Your task to perform on an android device: Go to internet settings Image 0: 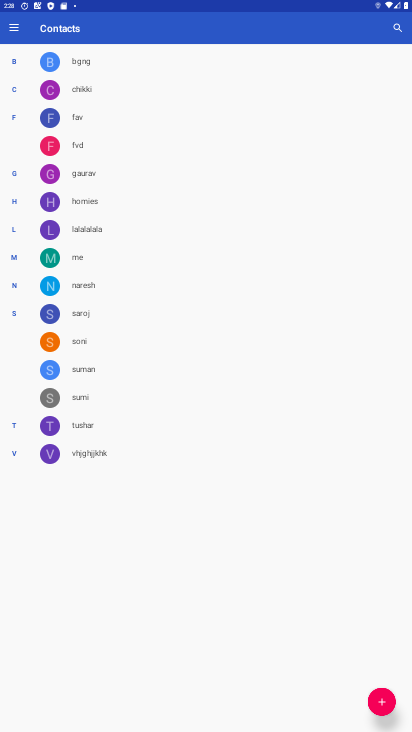
Step 0: press home button
Your task to perform on an android device: Go to internet settings Image 1: 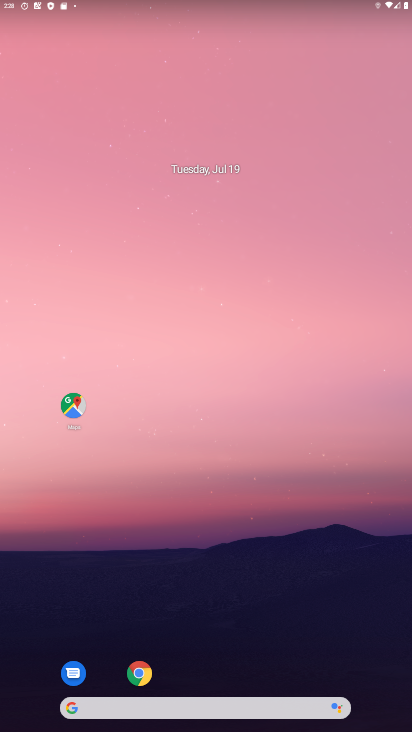
Step 1: drag from (228, 704) to (190, 7)
Your task to perform on an android device: Go to internet settings Image 2: 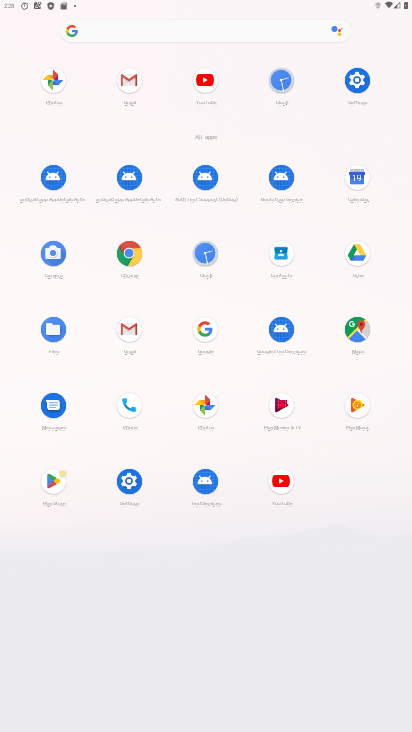
Step 2: click (133, 486)
Your task to perform on an android device: Go to internet settings Image 3: 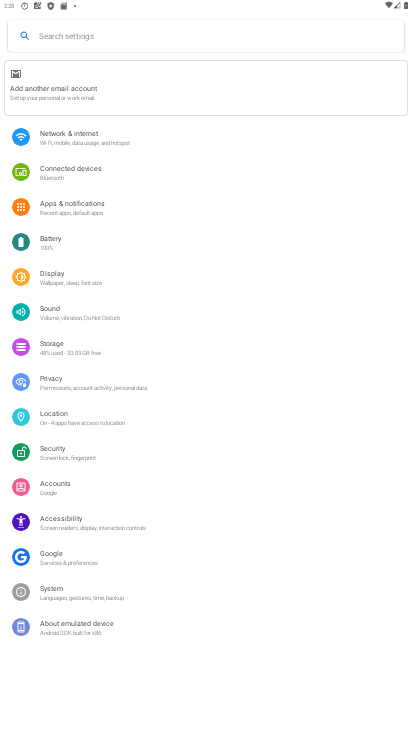
Step 3: click (96, 145)
Your task to perform on an android device: Go to internet settings Image 4: 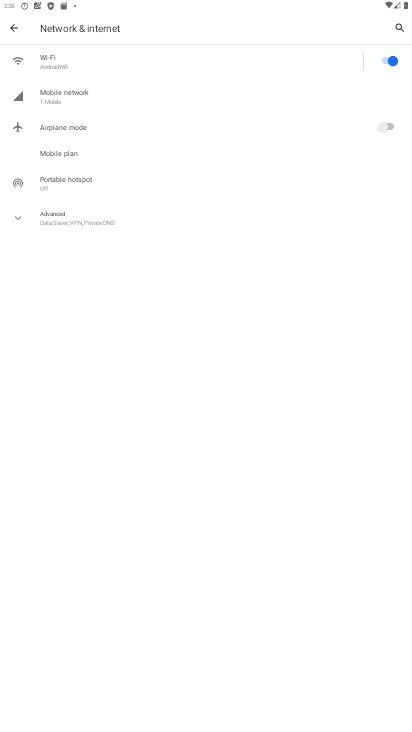
Step 4: task complete